Your task to perform on an android device: open app "Reddit" (install if not already installed), go to login, and select forgot password Image 0: 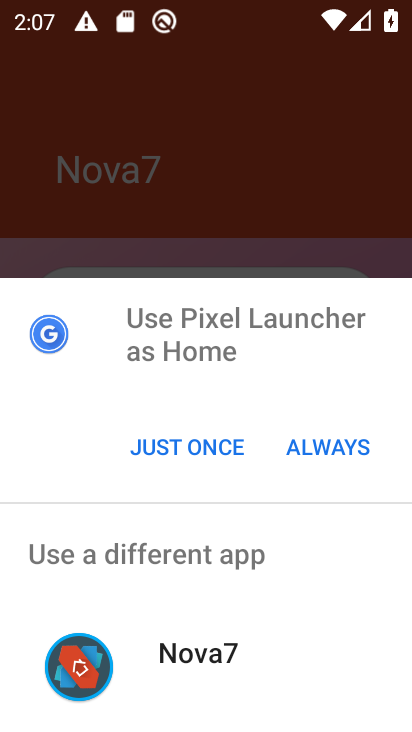
Step 0: task complete